Your task to perform on an android device: turn off javascript in the chrome app Image 0: 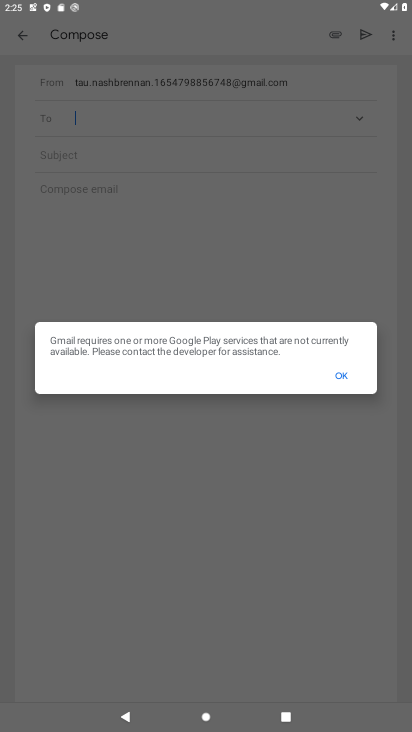
Step 0: press home button
Your task to perform on an android device: turn off javascript in the chrome app Image 1: 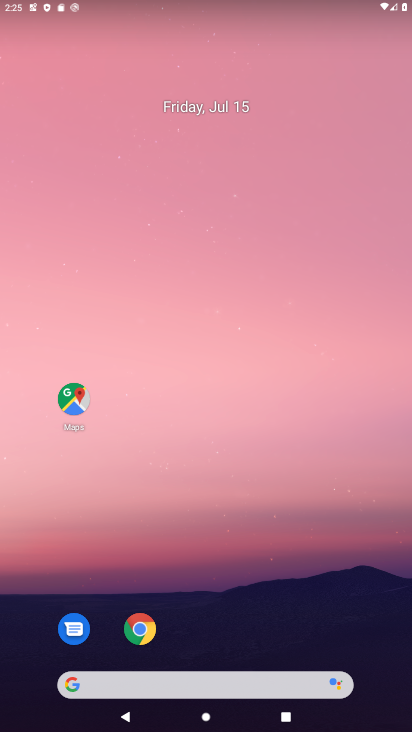
Step 1: click (139, 632)
Your task to perform on an android device: turn off javascript in the chrome app Image 2: 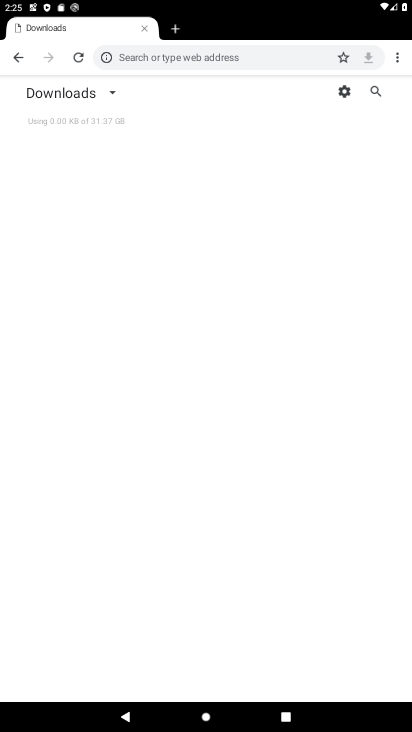
Step 2: click (395, 57)
Your task to perform on an android device: turn off javascript in the chrome app Image 3: 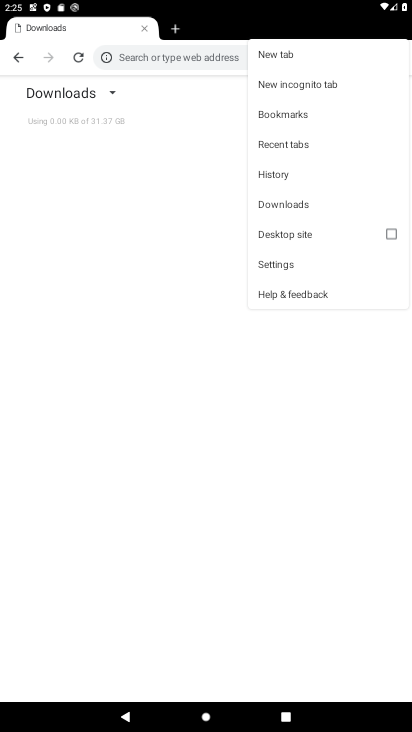
Step 3: click (288, 270)
Your task to perform on an android device: turn off javascript in the chrome app Image 4: 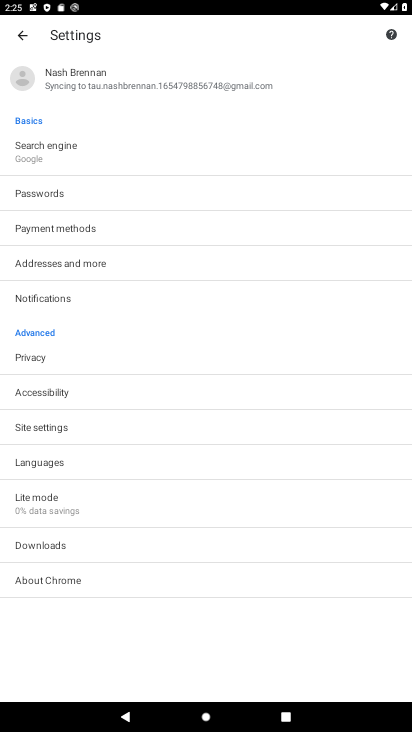
Step 4: click (70, 425)
Your task to perform on an android device: turn off javascript in the chrome app Image 5: 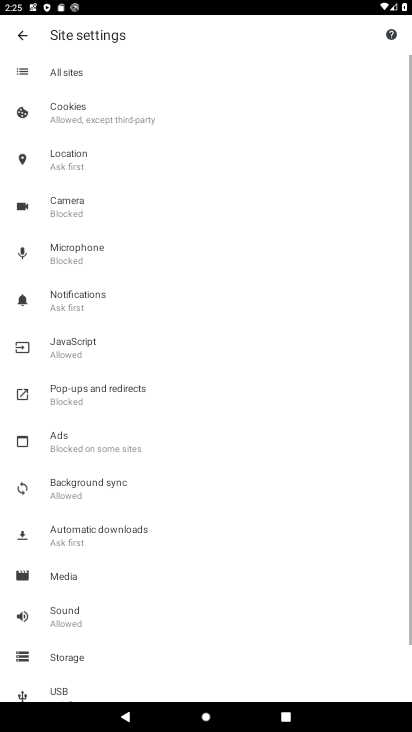
Step 5: click (100, 340)
Your task to perform on an android device: turn off javascript in the chrome app Image 6: 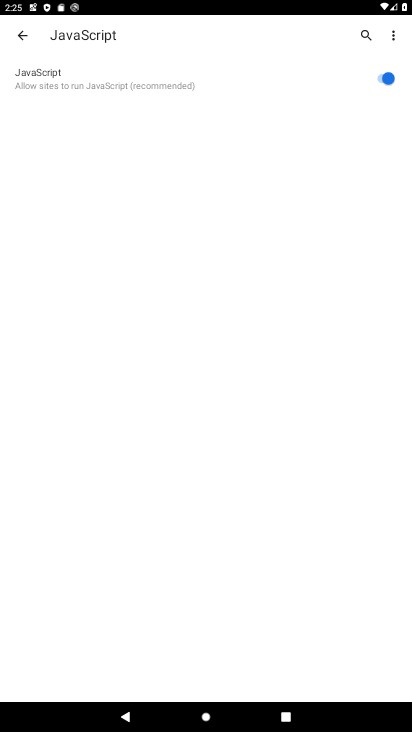
Step 6: click (390, 80)
Your task to perform on an android device: turn off javascript in the chrome app Image 7: 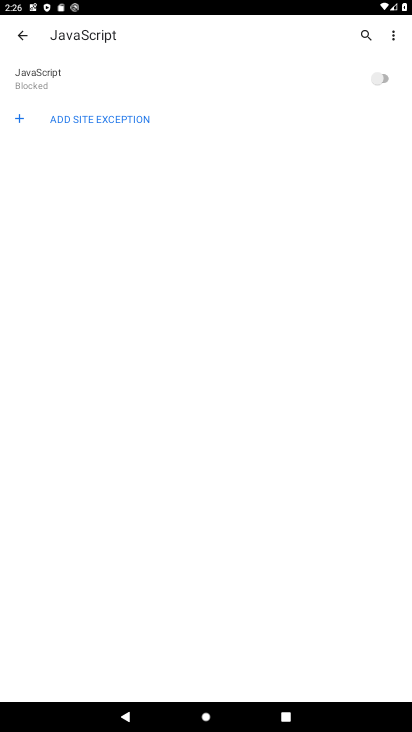
Step 7: task complete